Your task to perform on an android device: Open calendar and show me the fourth week of next month Image 0: 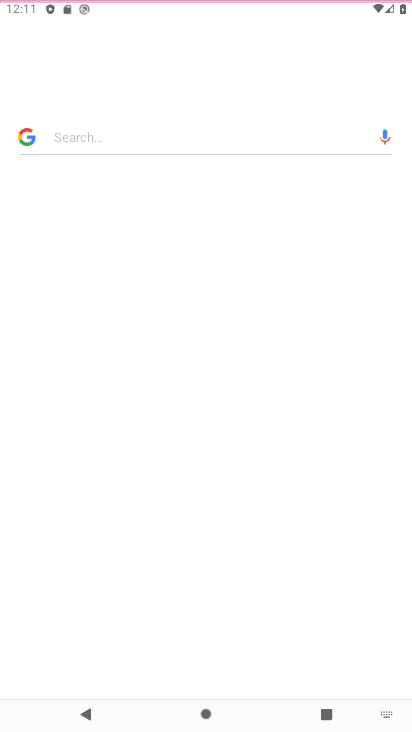
Step 0: drag from (351, 511) to (356, 261)
Your task to perform on an android device: Open calendar and show me the fourth week of next month Image 1: 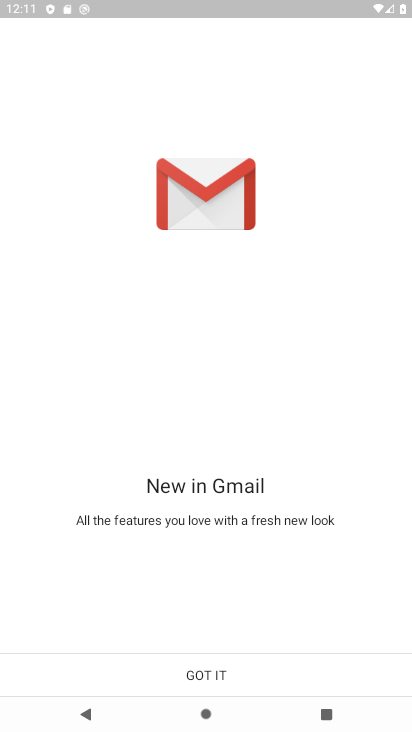
Step 1: press home button
Your task to perform on an android device: Open calendar and show me the fourth week of next month Image 2: 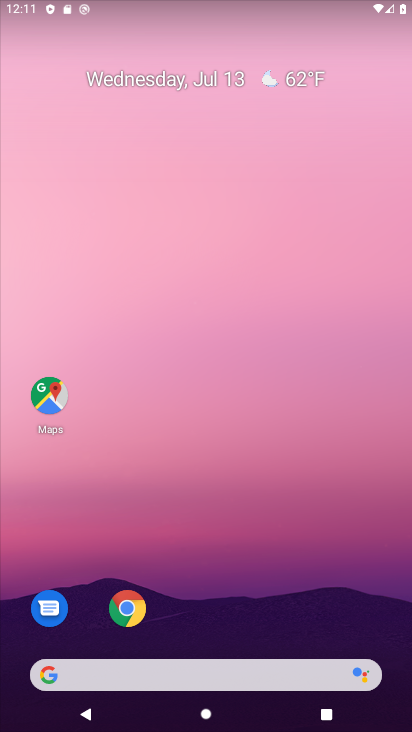
Step 2: drag from (337, 609) to (336, 70)
Your task to perform on an android device: Open calendar and show me the fourth week of next month Image 3: 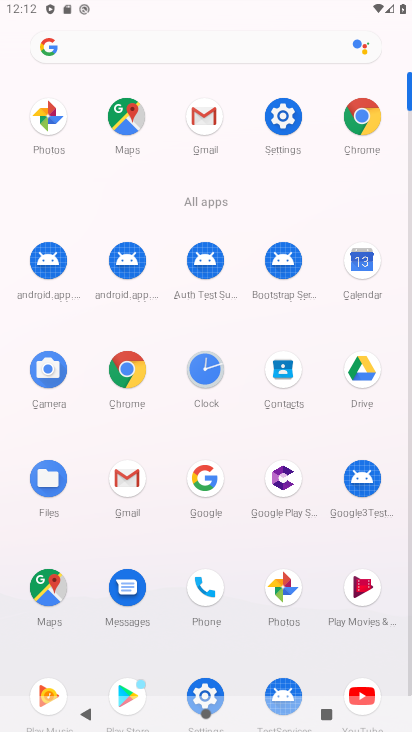
Step 3: click (368, 267)
Your task to perform on an android device: Open calendar and show me the fourth week of next month Image 4: 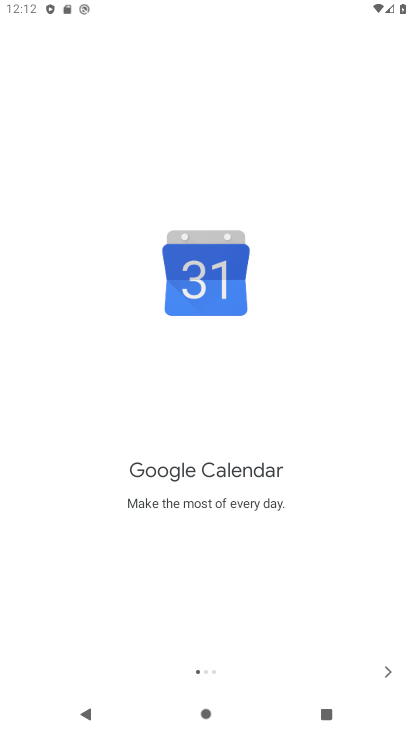
Step 4: click (375, 674)
Your task to perform on an android device: Open calendar and show me the fourth week of next month Image 5: 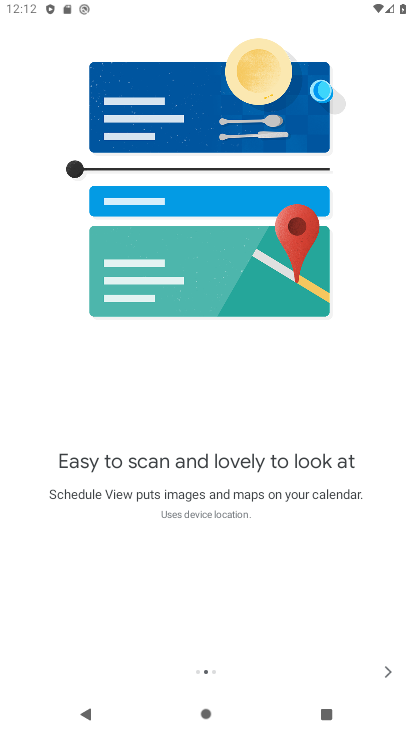
Step 5: click (383, 674)
Your task to perform on an android device: Open calendar and show me the fourth week of next month Image 6: 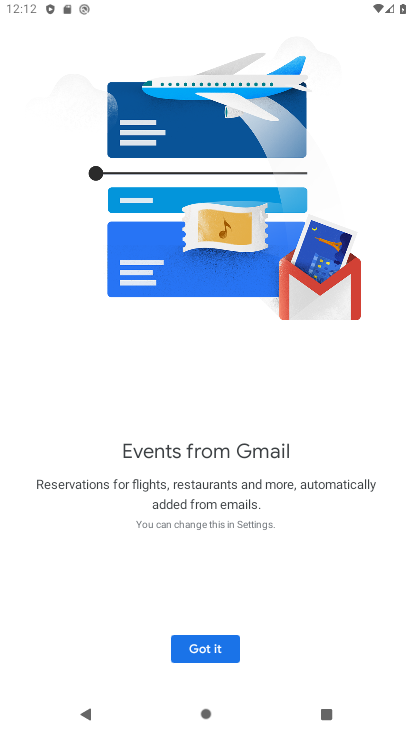
Step 6: click (191, 651)
Your task to perform on an android device: Open calendar and show me the fourth week of next month Image 7: 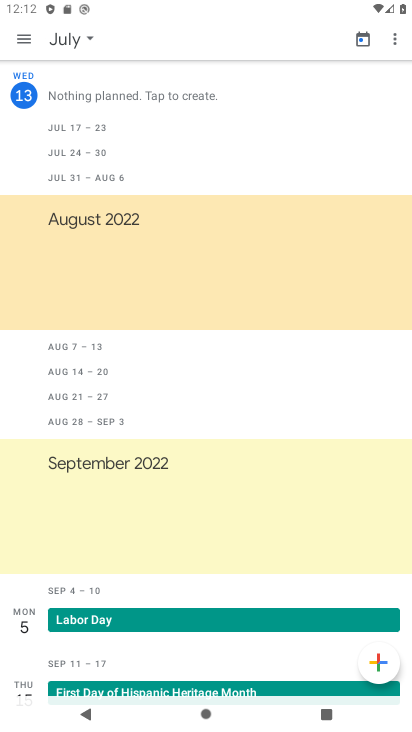
Step 7: click (87, 40)
Your task to perform on an android device: Open calendar and show me the fourth week of next month Image 8: 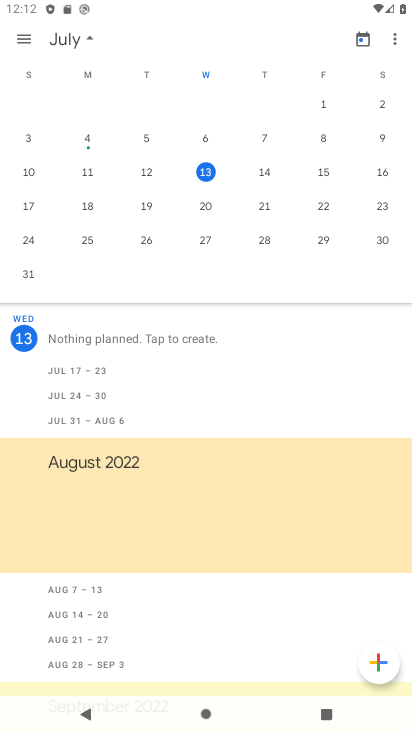
Step 8: drag from (388, 116) to (11, 100)
Your task to perform on an android device: Open calendar and show me the fourth week of next month Image 9: 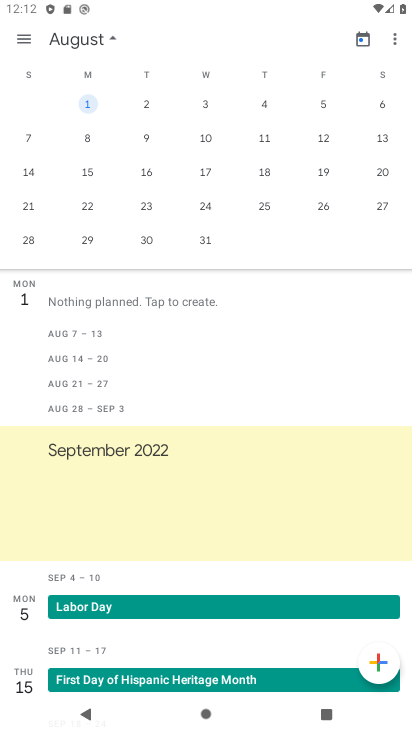
Step 9: click (86, 207)
Your task to perform on an android device: Open calendar and show me the fourth week of next month Image 10: 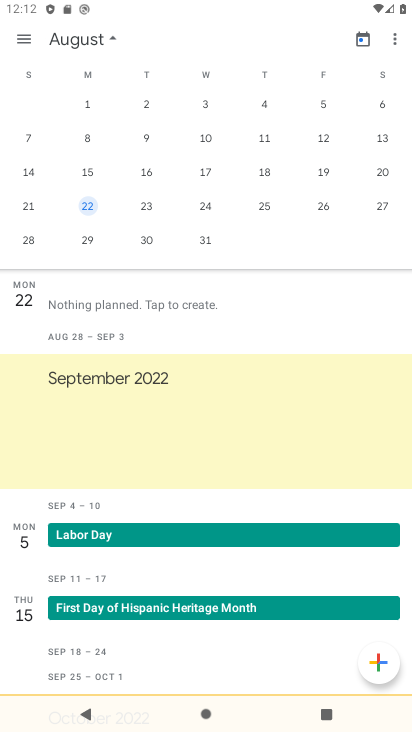
Step 10: task complete